Your task to perform on an android device: What's on my calendar today? Image 0: 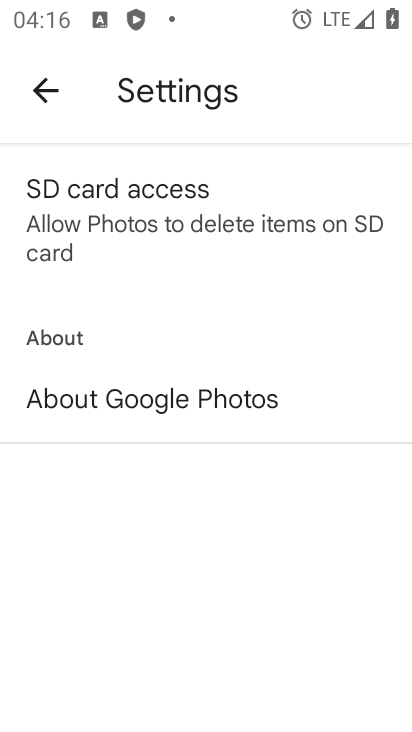
Step 0: press home button
Your task to perform on an android device: What's on my calendar today? Image 1: 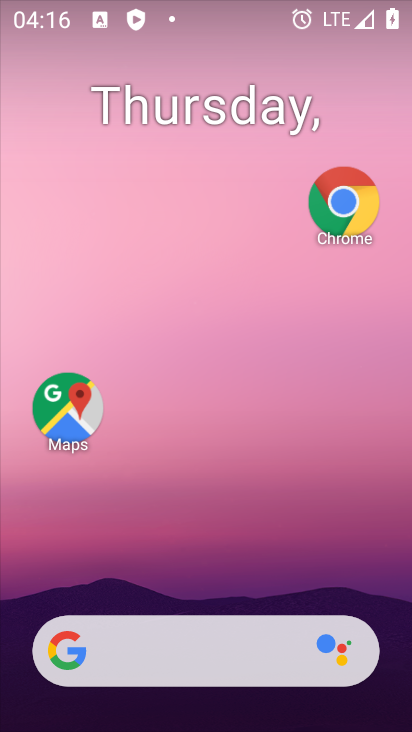
Step 1: drag from (316, 528) to (291, 186)
Your task to perform on an android device: What's on my calendar today? Image 2: 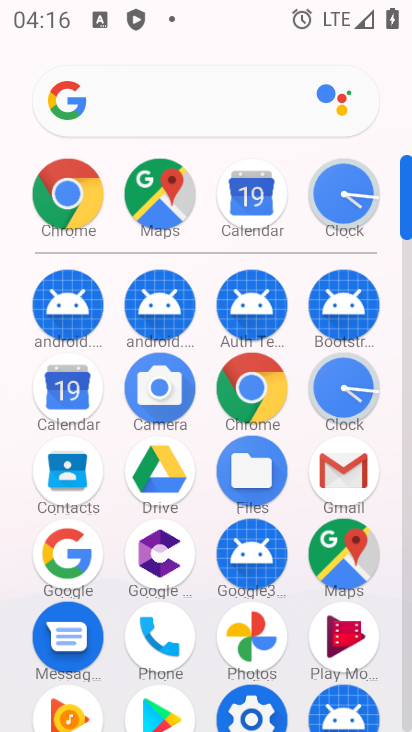
Step 2: click (73, 385)
Your task to perform on an android device: What's on my calendar today? Image 3: 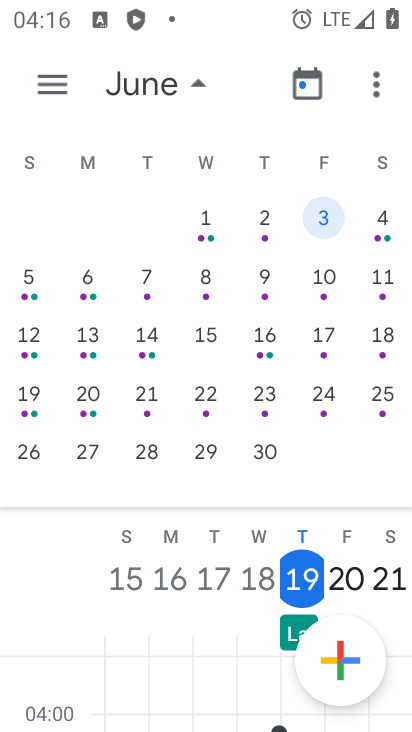
Step 3: drag from (128, 367) to (367, 375)
Your task to perform on an android device: What's on my calendar today? Image 4: 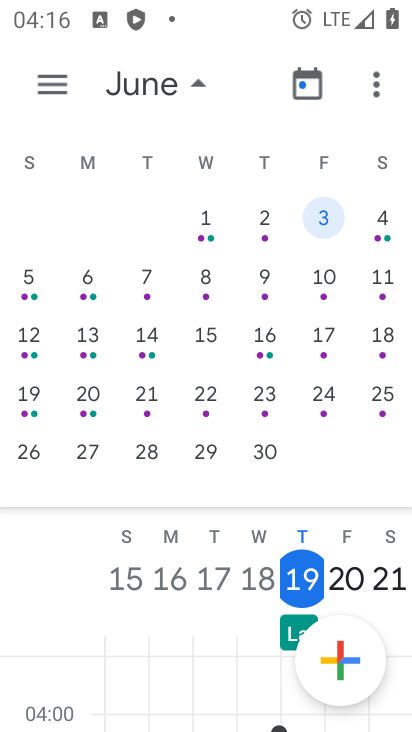
Step 4: drag from (59, 355) to (402, 373)
Your task to perform on an android device: What's on my calendar today? Image 5: 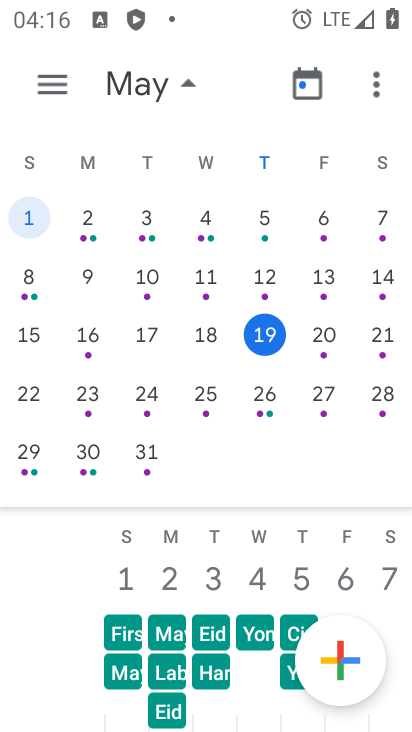
Step 5: click (257, 340)
Your task to perform on an android device: What's on my calendar today? Image 6: 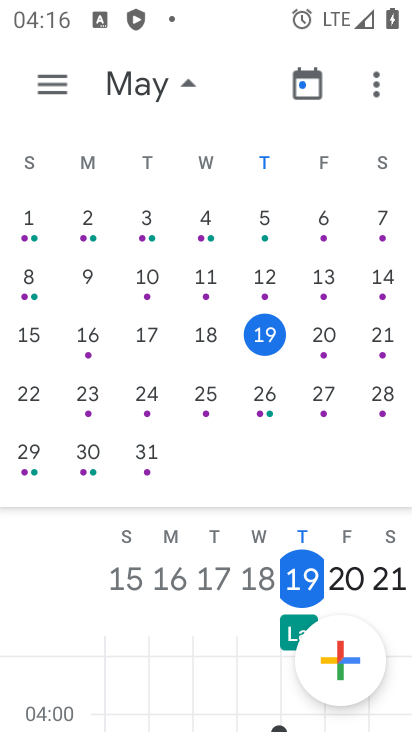
Step 6: task complete